Your task to perform on an android device: turn on notifications settings in the gmail app Image 0: 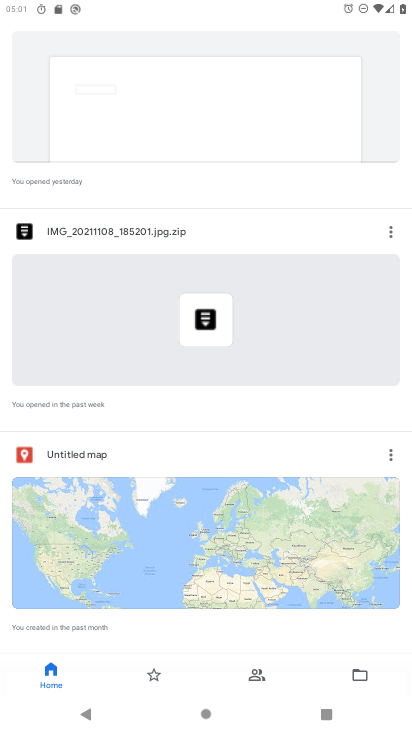
Step 0: press home button
Your task to perform on an android device: turn on notifications settings in the gmail app Image 1: 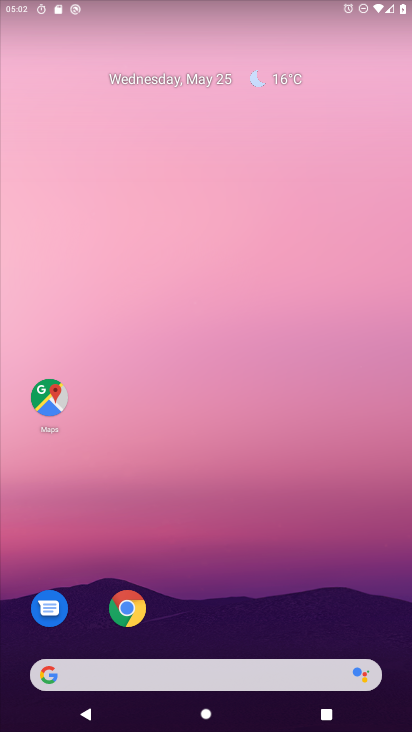
Step 1: drag from (272, 572) to (167, 73)
Your task to perform on an android device: turn on notifications settings in the gmail app Image 2: 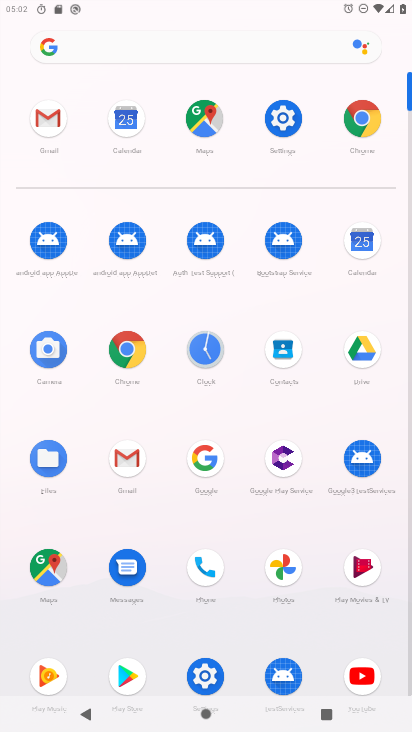
Step 2: click (51, 112)
Your task to perform on an android device: turn on notifications settings in the gmail app Image 3: 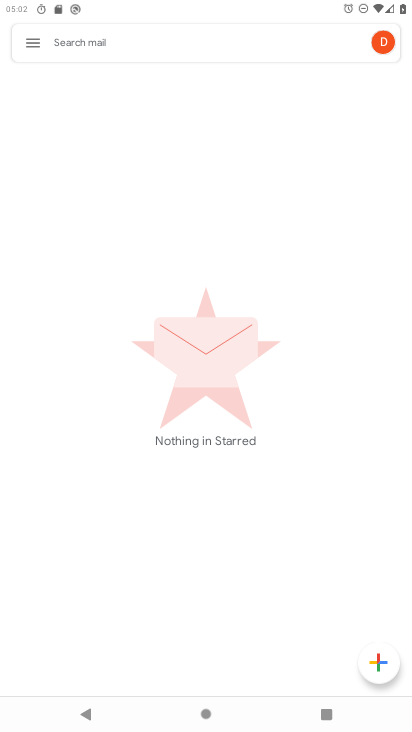
Step 3: click (27, 49)
Your task to perform on an android device: turn on notifications settings in the gmail app Image 4: 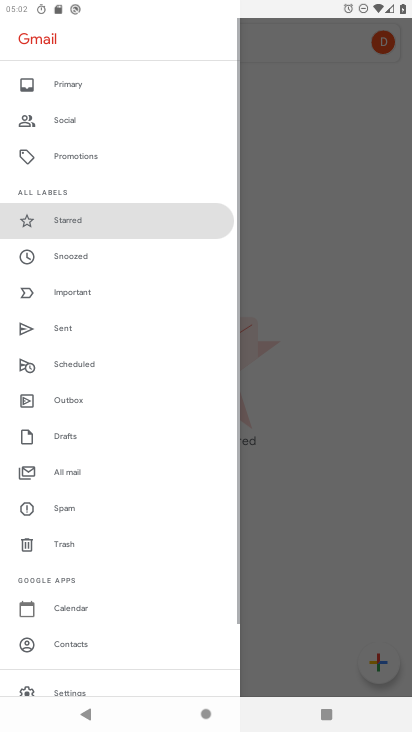
Step 4: drag from (99, 593) to (197, 103)
Your task to perform on an android device: turn on notifications settings in the gmail app Image 5: 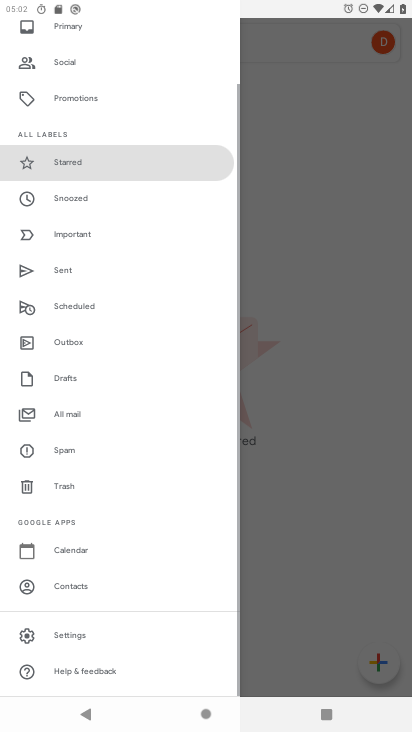
Step 5: click (92, 635)
Your task to perform on an android device: turn on notifications settings in the gmail app Image 6: 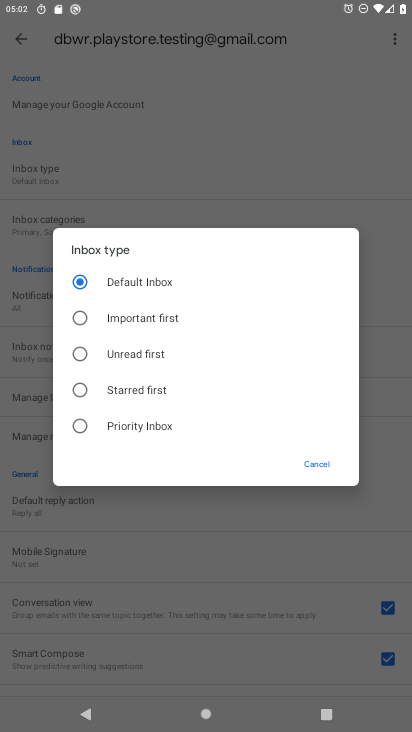
Step 6: click (187, 167)
Your task to perform on an android device: turn on notifications settings in the gmail app Image 7: 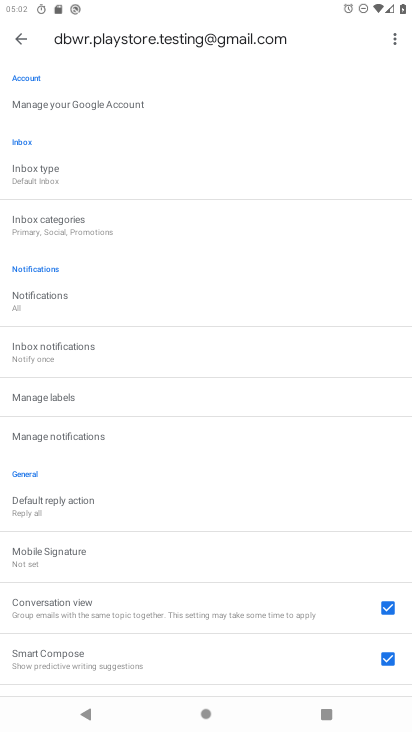
Step 7: click (81, 435)
Your task to perform on an android device: turn on notifications settings in the gmail app Image 8: 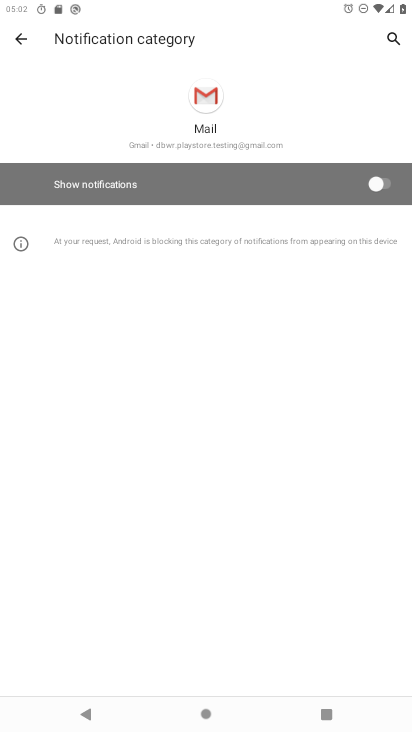
Step 8: click (360, 180)
Your task to perform on an android device: turn on notifications settings in the gmail app Image 9: 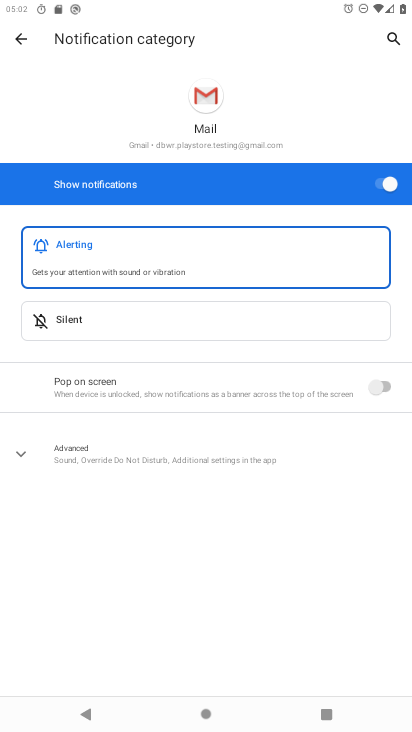
Step 9: task complete